Your task to perform on an android device: find snoozed emails in the gmail app Image 0: 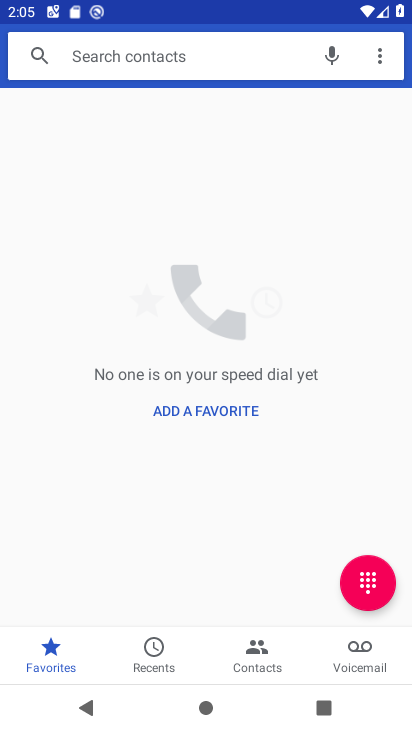
Step 0: press home button
Your task to perform on an android device: find snoozed emails in the gmail app Image 1: 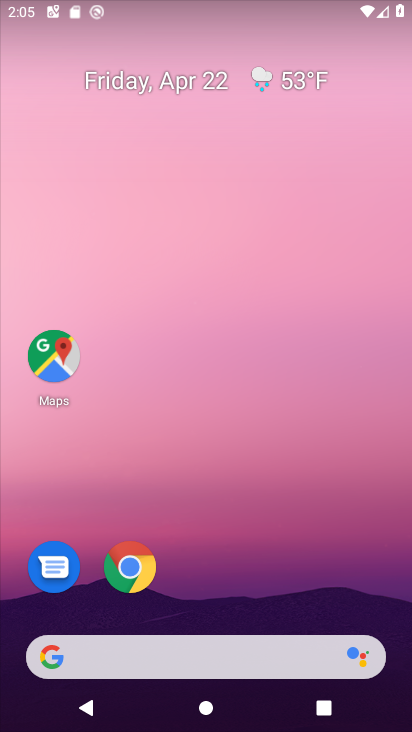
Step 1: drag from (273, 549) to (299, 59)
Your task to perform on an android device: find snoozed emails in the gmail app Image 2: 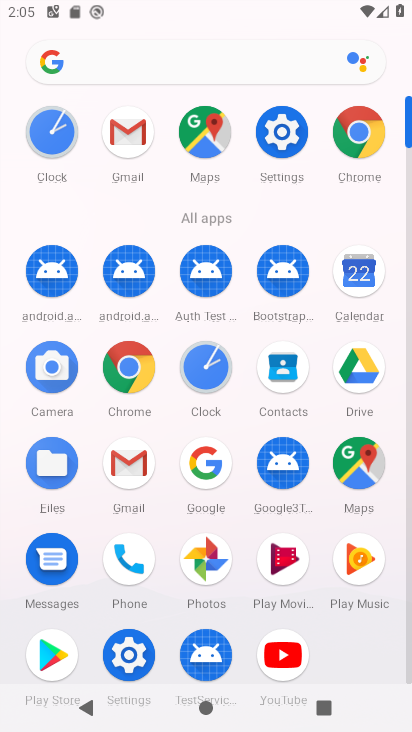
Step 2: click (128, 131)
Your task to perform on an android device: find snoozed emails in the gmail app Image 3: 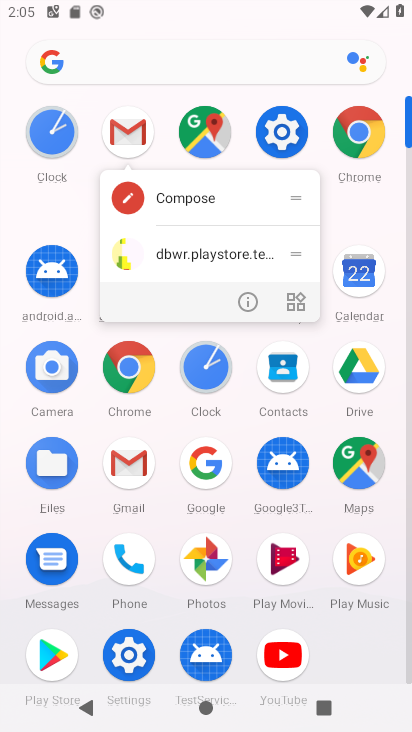
Step 3: click (128, 131)
Your task to perform on an android device: find snoozed emails in the gmail app Image 4: 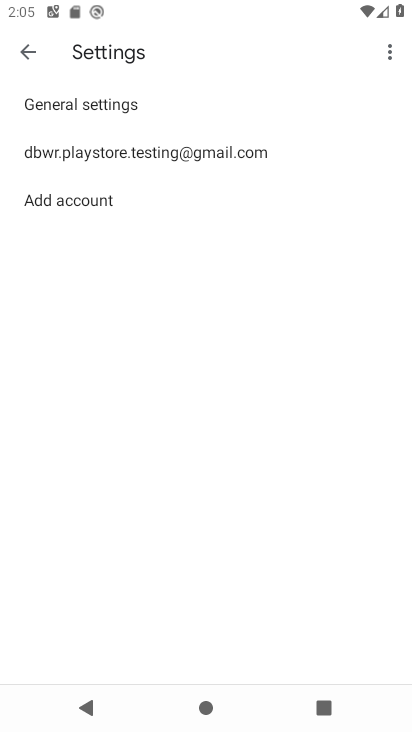
Step 4: click (26, 50)
Your task to perform on an android device: find snoozed emails in the gmail app Image 5: 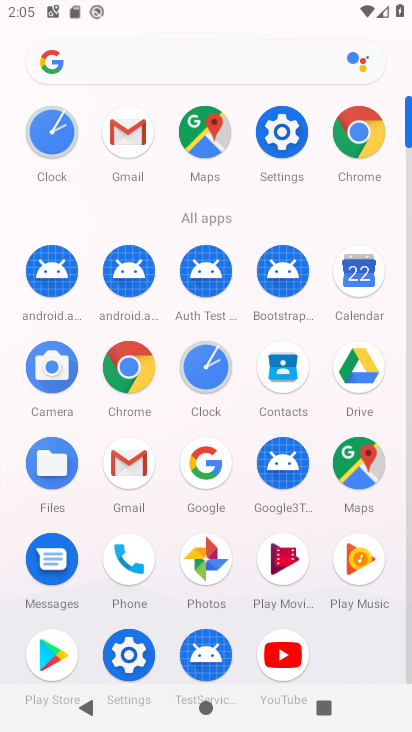
Step 5: click (129, 138)
Your task to perform on an android device: find snoozed emails in the gmail app Image 6: 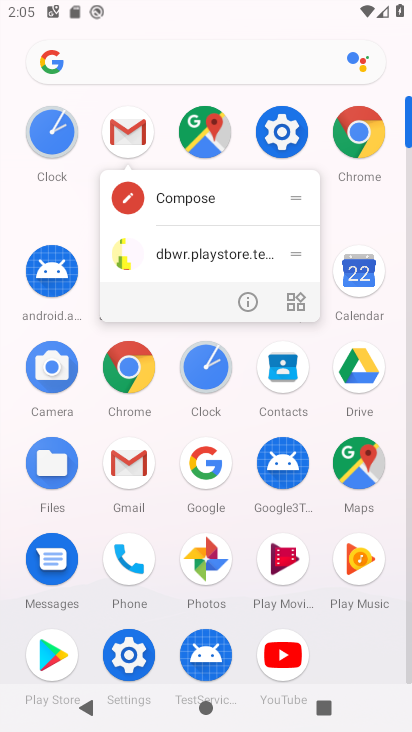
Step 6: click (129, 124)
Your task to perform on an android device: find snoozed emails in the gmail app Image 7: 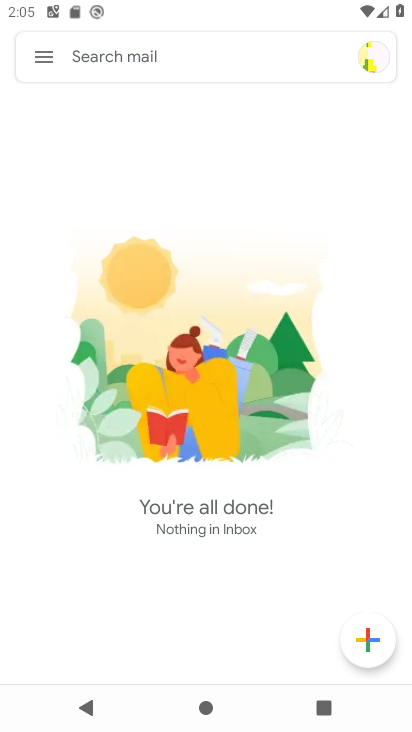
Step 7: click (41, 58)
Your task to perform on an android device: find snoozed emails in the gmail app Image 8: 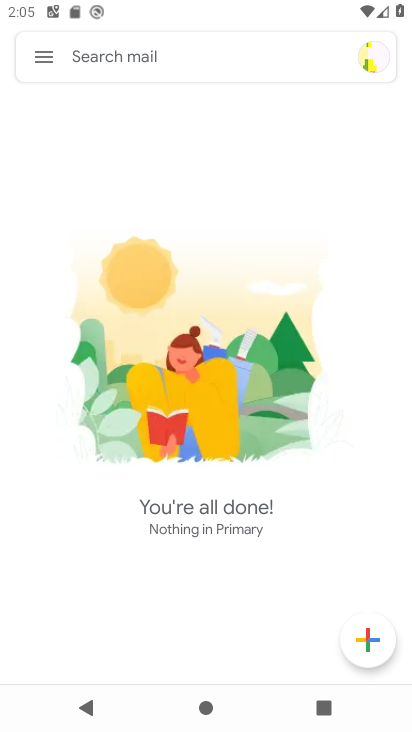
Step 8: click (41, 55)
Your task to perform on an android device: find snoozed emails in the gmail app Image 9: 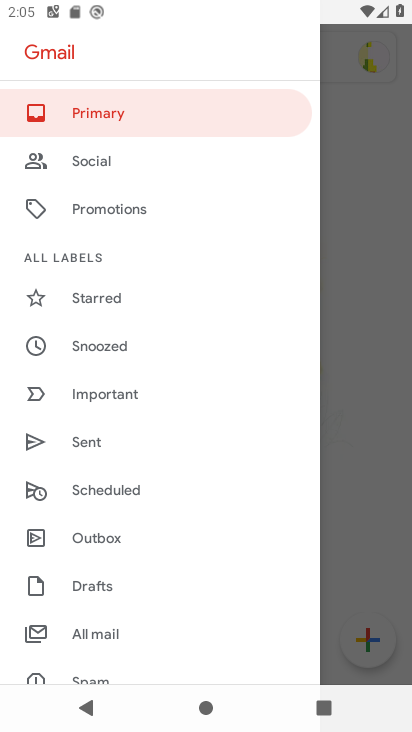
Step 9: click (148, 338)
Your task to perform on an android device: find snoozed emails in the gmail app Image 10: 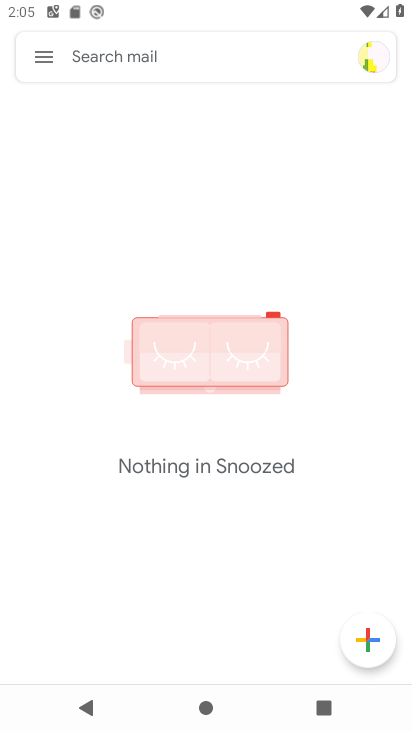
Step 10: task complete